Your task to perform on an android device: toggle pop-ups in chrome Image 0: 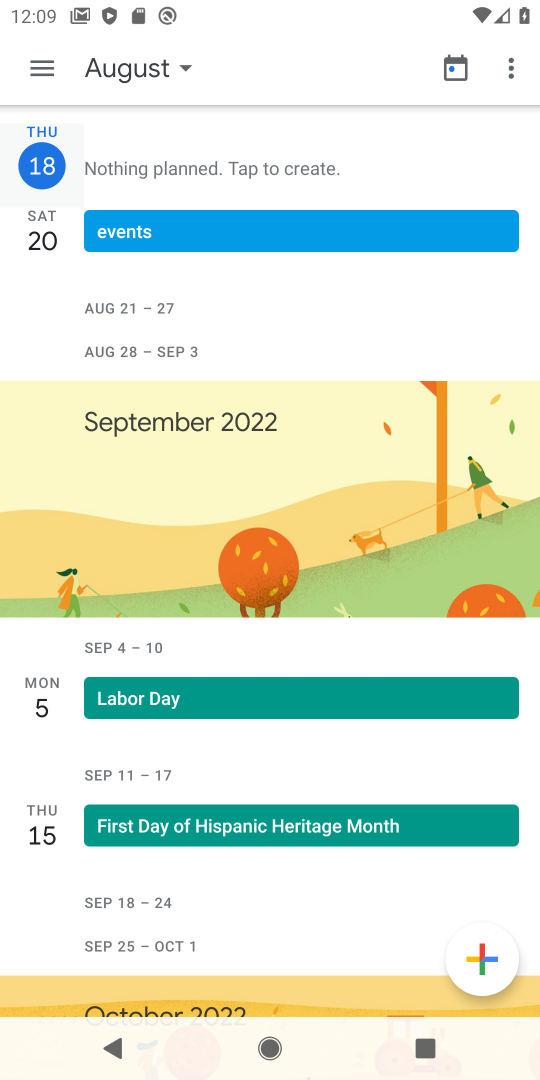
Step 0: task complete